Your task to perform on an android device: When is my next appointment? Image 0: 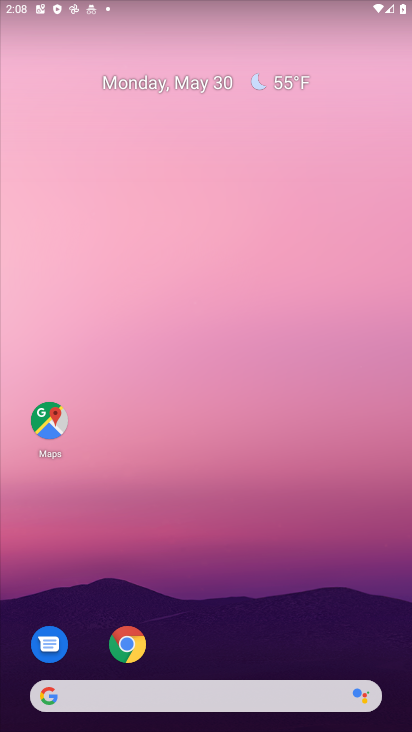
Step 0: task complete